Your task to perform on an android device: See recent photos Image 0: 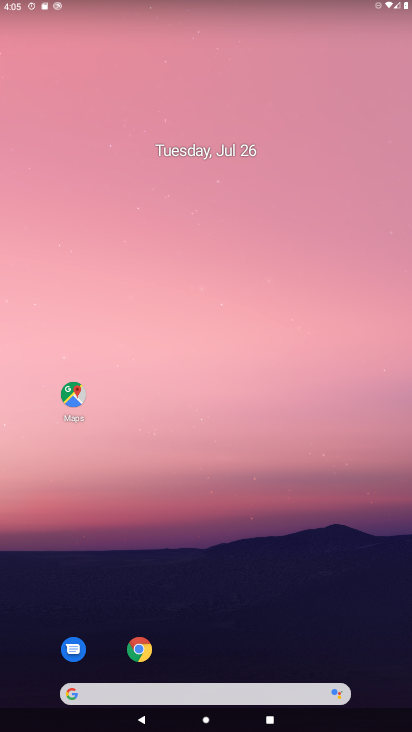
Step 0: drag from (298, 444) to (235, 50)
Your task to perform on an android device: See recent photos Image 1: 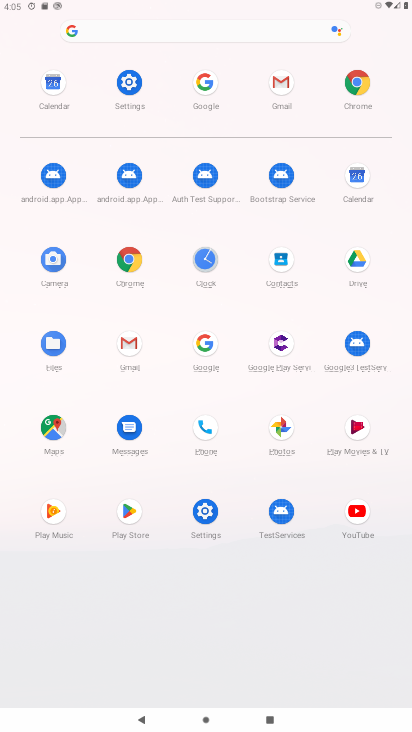
Step 1: click (281, 426)
Your task to perform on an android device: See recent photos Image 2: 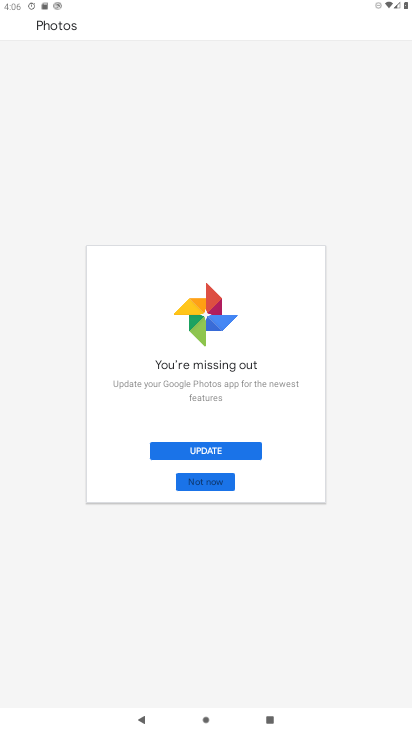
Step 2: click (225, 451)
Your task to perform on an android device: See recent photos Image 3: 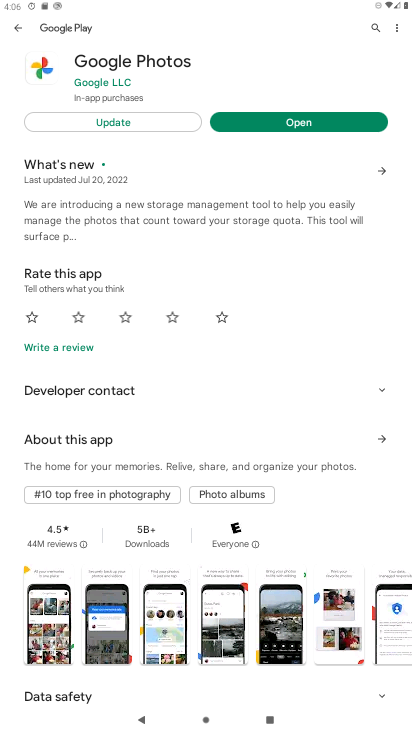
Step 3: click (96, 126)
Your task to perform on an android device: See recent photos Image 4: 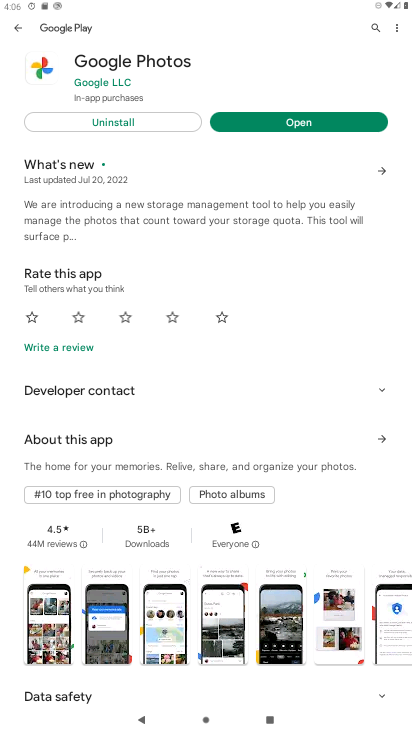
Step 4: click (290, 130)
Your task to perform on an android device: See recent photos Image 5: 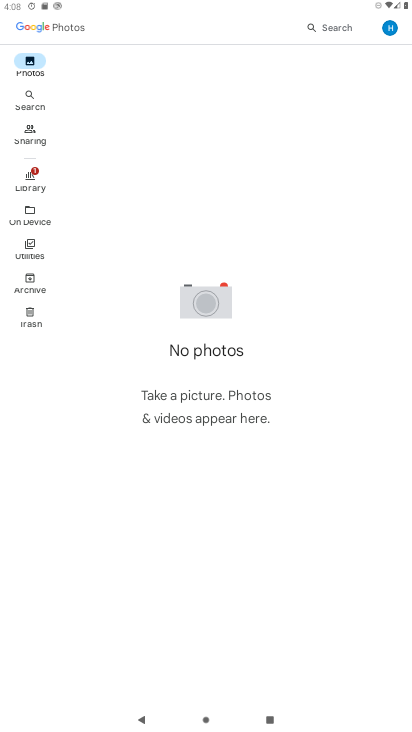
Step 5: task complete